Your task to perform on an android device: Open Google Chrome Image 0: 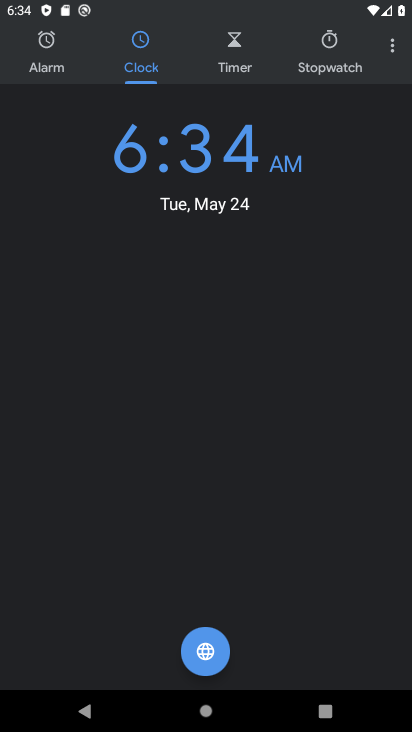
Step 0: press home button
Your task to perform on an android device: Open Google Chrome Image 1: 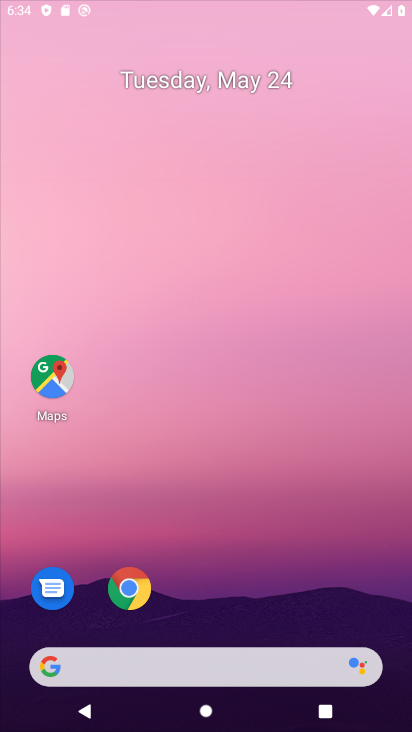
Step 1: drag from (328, 680) to (333, 9)
Your task to perform on an android device: Open Google Chrome Image 2: 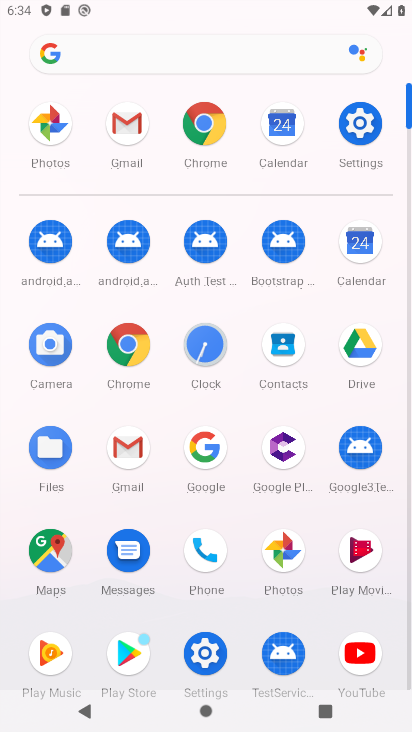
Step 2: click (133, 346)
Your task to perform on an android device: Open Google Chrome Image 3: 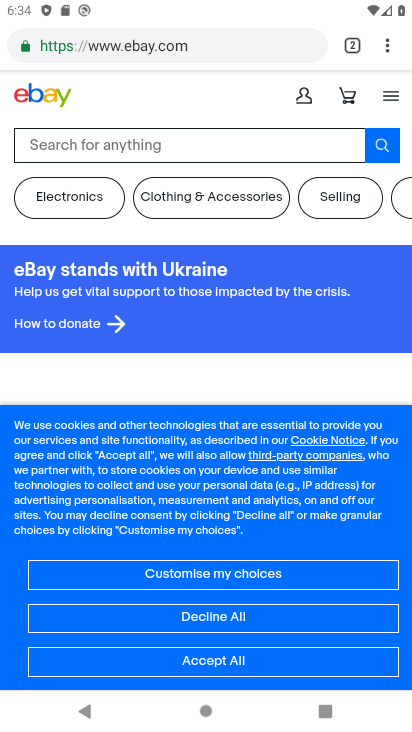
Step 3: click (387, 51)
Your task to perform on an android device: Open Google Chrome Image 4: 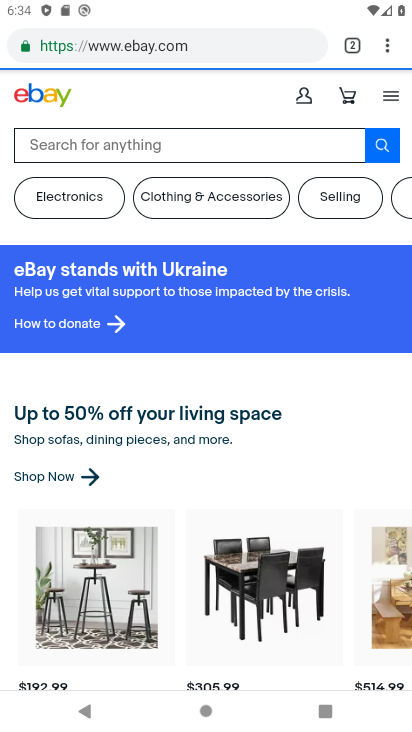
Step 4: task complete